Your task to perform on an android device: Open Maps and search for coffee Image 0: 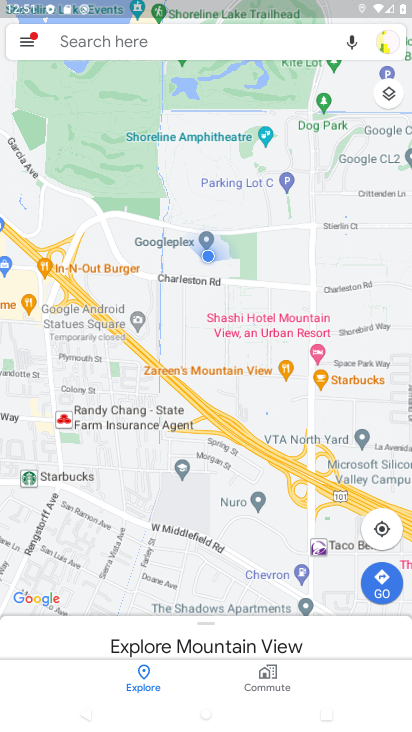
Step 0: click (154, 44)
Your task to perform on an android device: Open Maps and search for coffee Image 1: 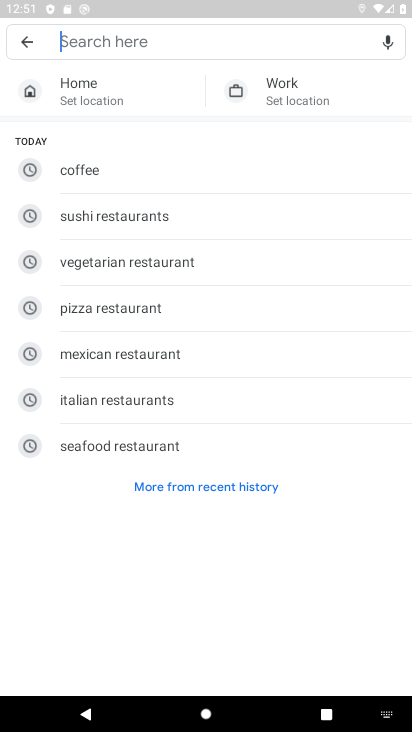
Step 1: type "coffee"
Your task to perform on an android device: Open Maps and search for coffee Image 2: 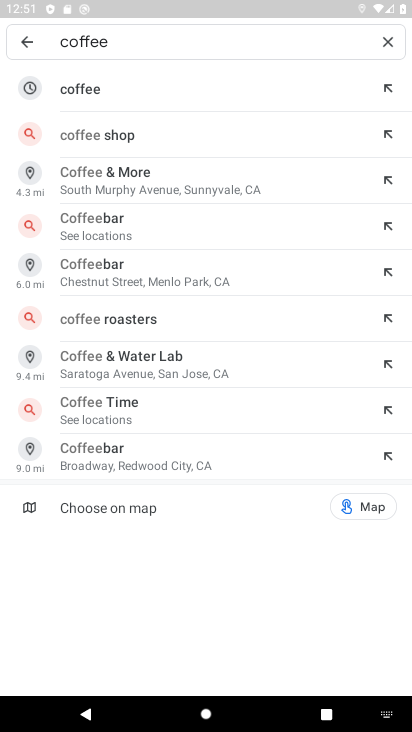
Step 2: click (124, 89)
Your task to perform on an android device: Open Maps and search for coffee Image 3: 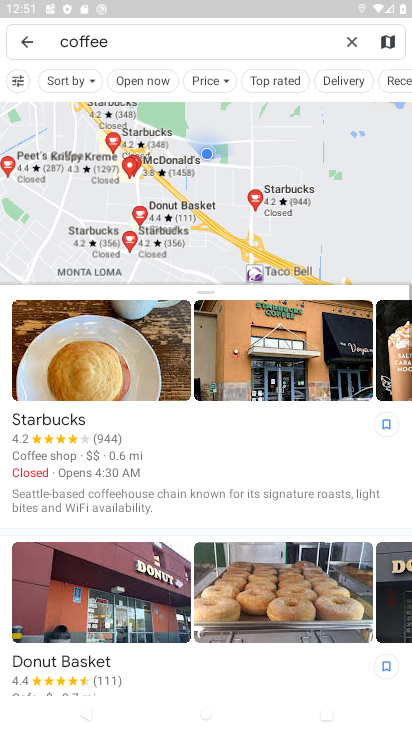
Step 3: drag from (206, 384) to (187, 193)
Your task to perform on an android device: Open Maps and search for coffee Image 4: 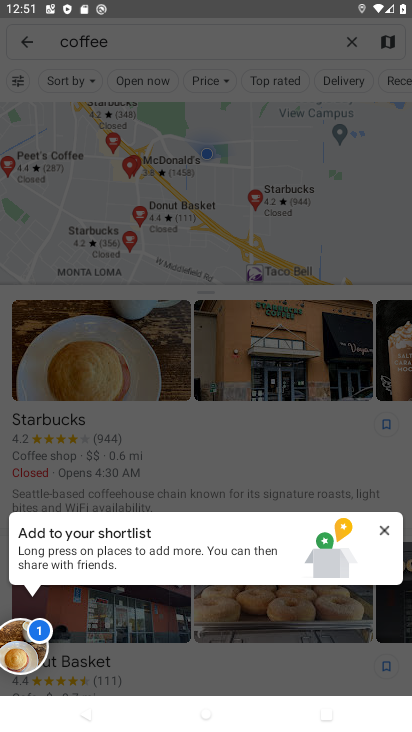
Step 4: click (381, 525)
Your task to perform on an android device: Open Maps and search for coffee Image 5: 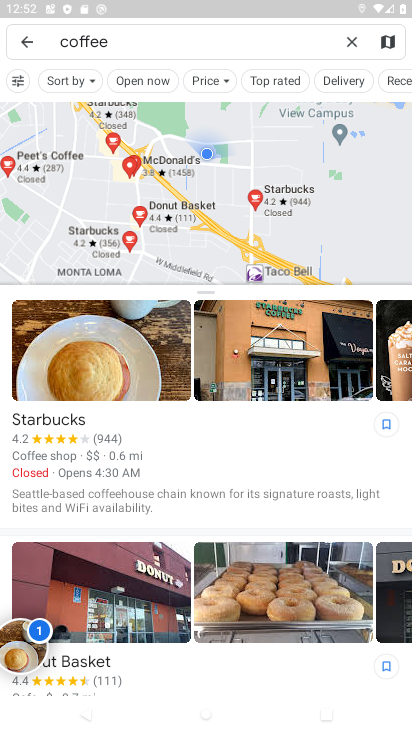
Step 5: task complete